Your task to perform on an android device: Open Chrome and go to settings Image 0: 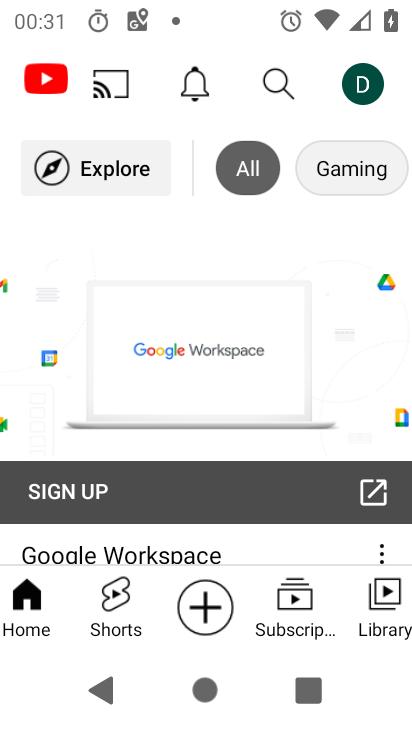
Step 0: press home button
Your task to perform on an android device: Open Chrome and go to settings Image 1: 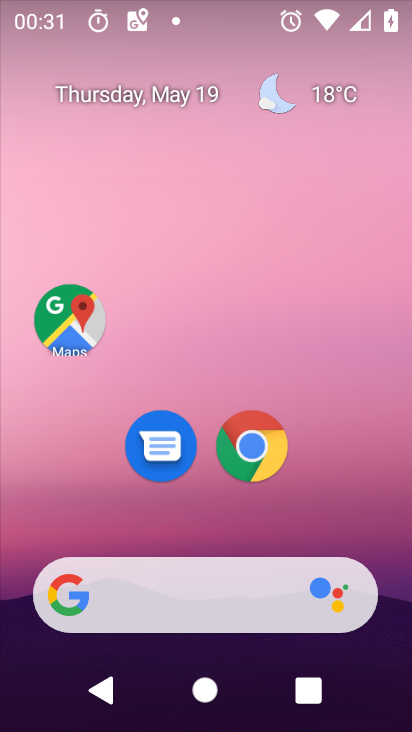
Step 1: click (257, 452)
Your task to perform on an android device: Open Chrome and go to settings Image 2: 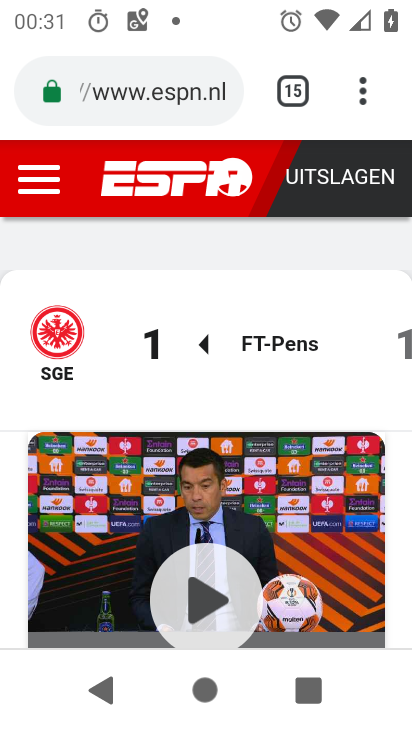
Step 2: task complete